Your task to perform on an android device: open app "Grab" Image 0: 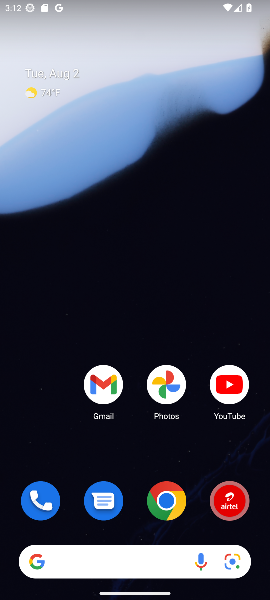
Step 0: drag from (139, 460) to (98, 37)
Your task to perform on an android device: open app "Grab" Image 1: 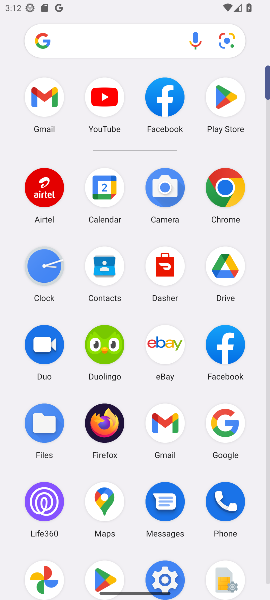
Step 1: click (219, 93)
Your task to perform on an android device: open app "Grab" Image 2: 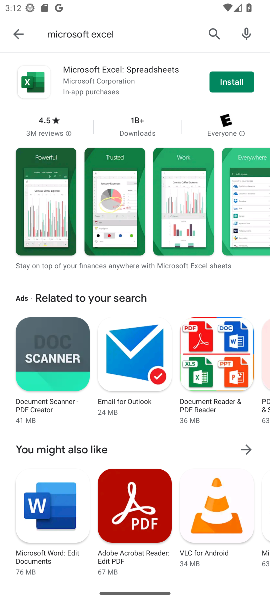
Step 2: click (209, 29)
Your task to perform on an android device: open app "Grab" Image 3: 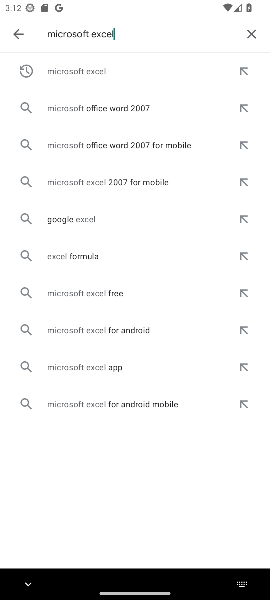
Step 3: click (250, 32)
Your task to perform on an android device: open app "Grab" Image 4: 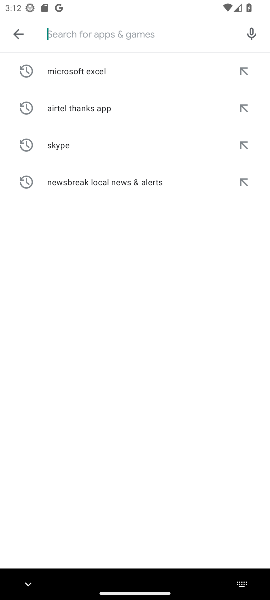
Step 4: type "Grab"
Your task to perform on an android device: open app "Grab" Image 5: 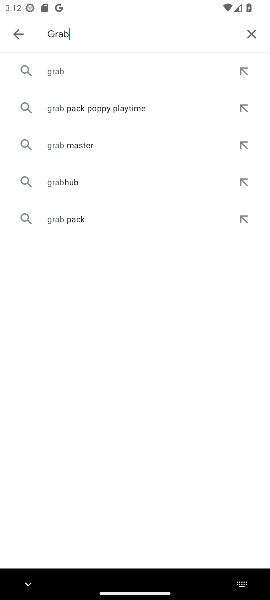
Step 5: click (46, 76)
Your task to perform on an android device: open app "Grab" Image 6: 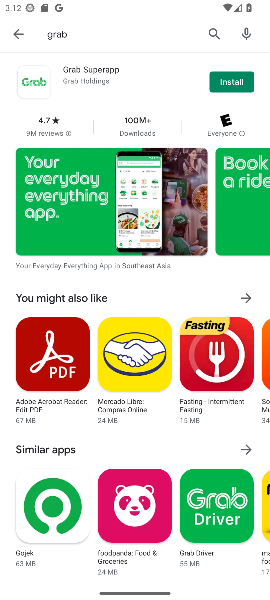
Step 6: task complete